Your task to perform on an android device: Open internet settings Image 0: 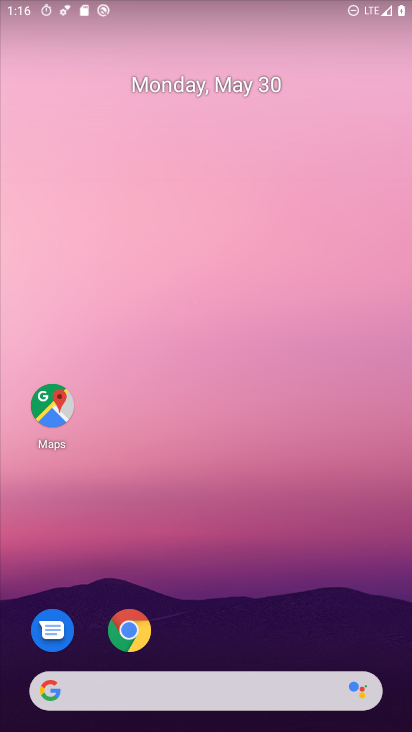
Step 0: drag from (288, 692) to (159, 183)
Your task to perform on an android device: Open internet settings Image 1: 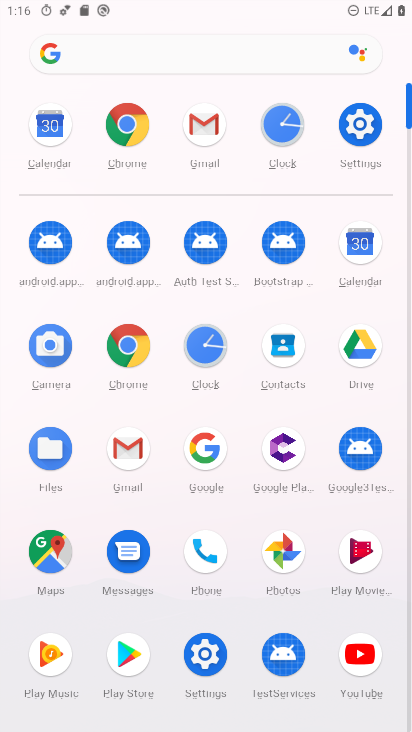
Step 1: click (342, 125)
Your task to perform on an android device: Open internet settings Image 2: 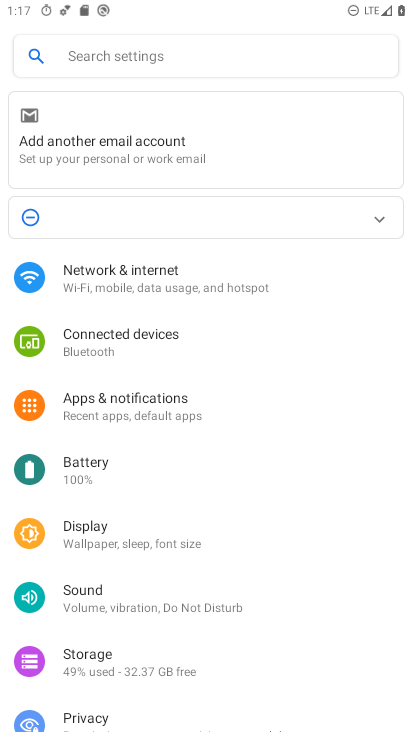
Step 2: click (211, 282)
Your task to perform on an android device: Open internet settings Image 3: 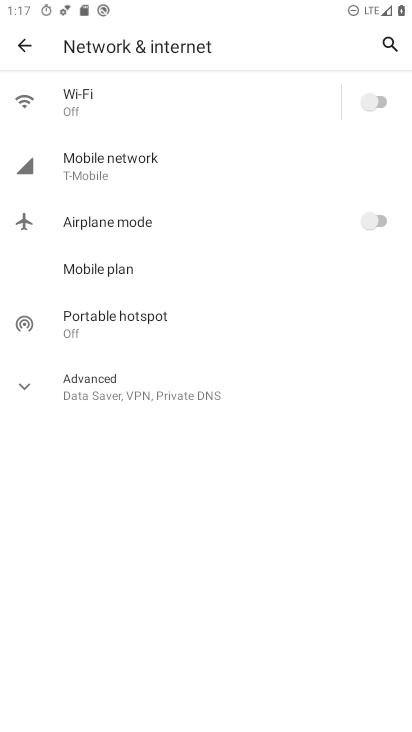
Step 3: task complete